Your task to perform on an android device: toggle location history Image 0: 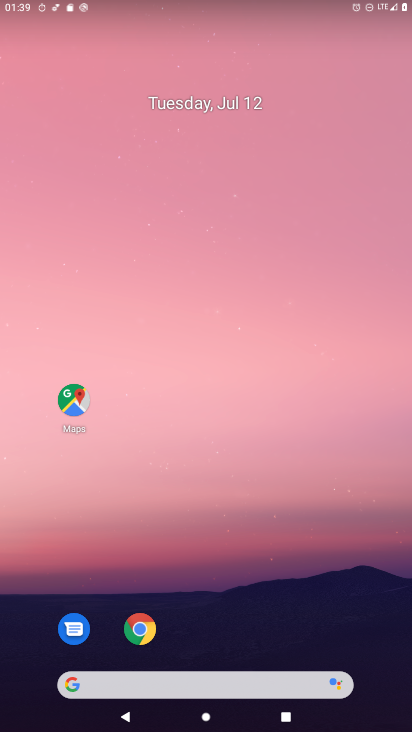
Step 0: drag from (73, 634) to (186, 3)
Your task to perform on an android device: toggle location history Image 1: 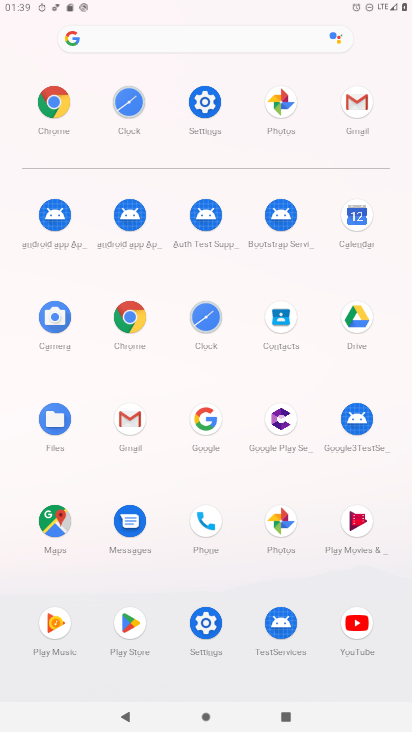
Step 1: click (204, 617)
Your task to perform on an android device: toggle location history Image 2: 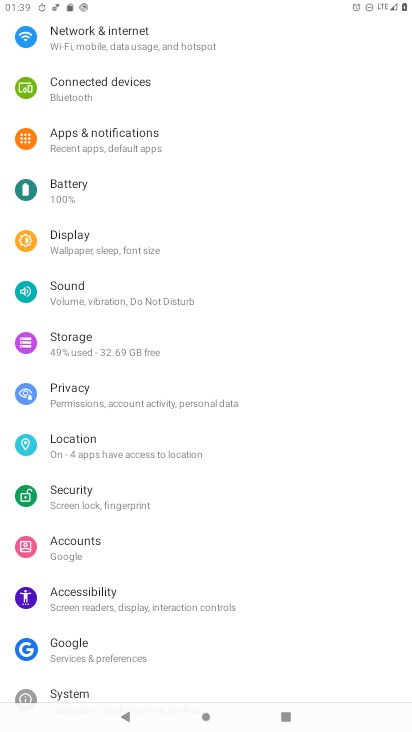
Step 2: click (98, 441)
Your task to perform on an android device: toggle location history Image 3: 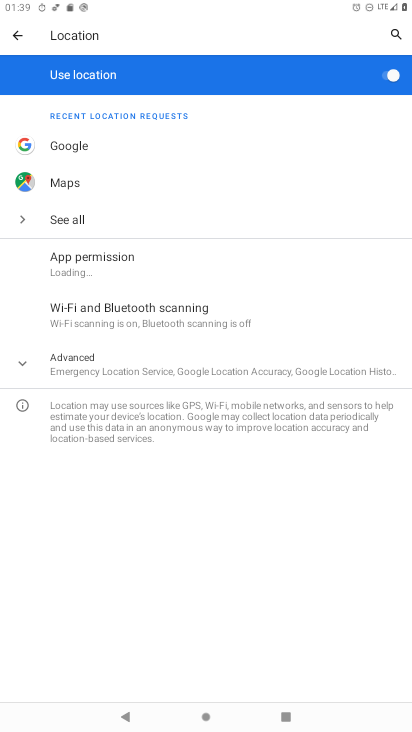
Step 3: click (108, 360)
Your task to perform on an android device: toggle location history Image 4: 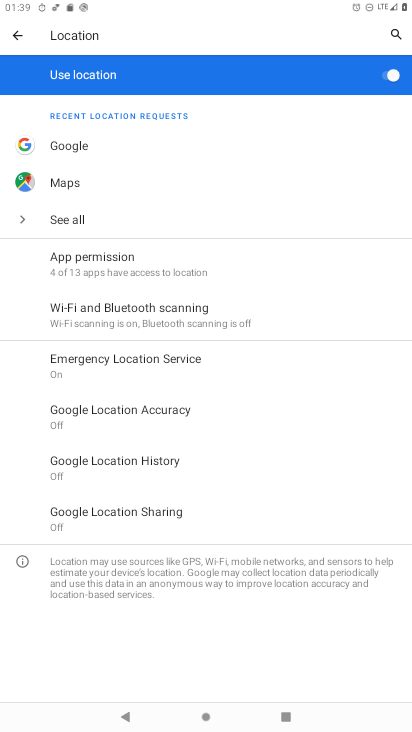
Step 4: click (107, 469)
Your task to perform on an android device: toggle location history Image 5: 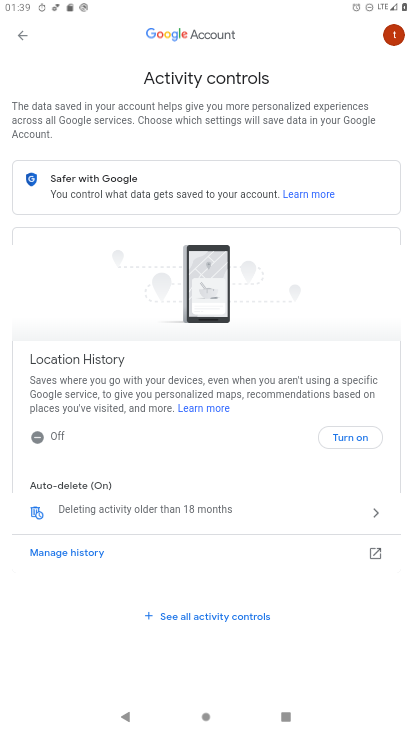
Step 5: task complete